Your task to perform on an android device: Open Yahoo.com Image 0: 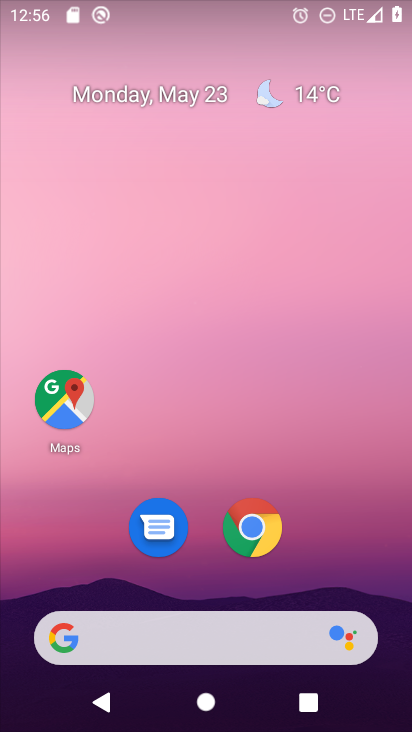
Step 0: click (259, 561)
Your task to perform on an android device: Open Yahoo.com Image 1: 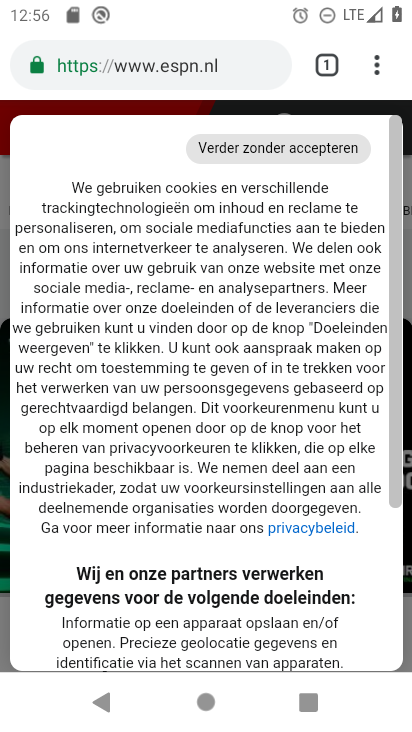
Step 1: click (246, 75)
Your task to perform on an android device: Open Yahoo.com Image 2: 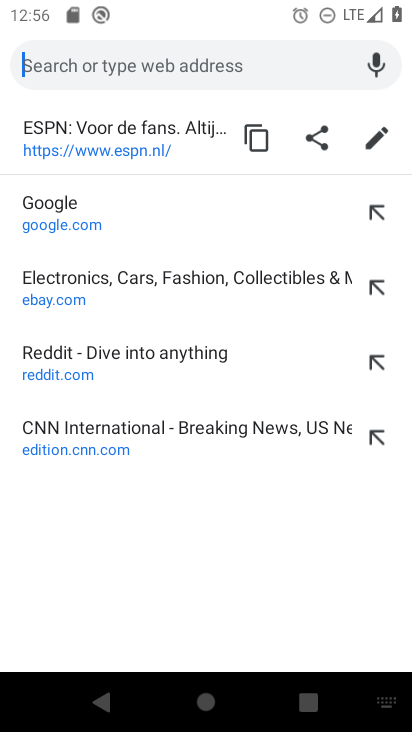
Step 2: type "yahoo.com"
Your task to perform on an android device: Open Yahoo.com Image 3: 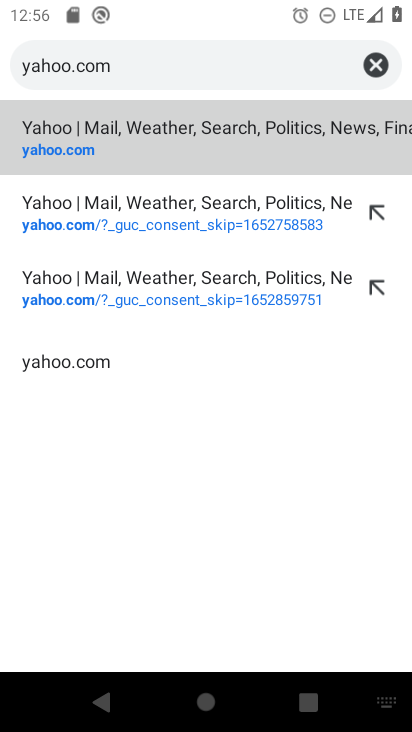
Step 3: task complete